Your task to perform on an android device: check battery use Image 0: 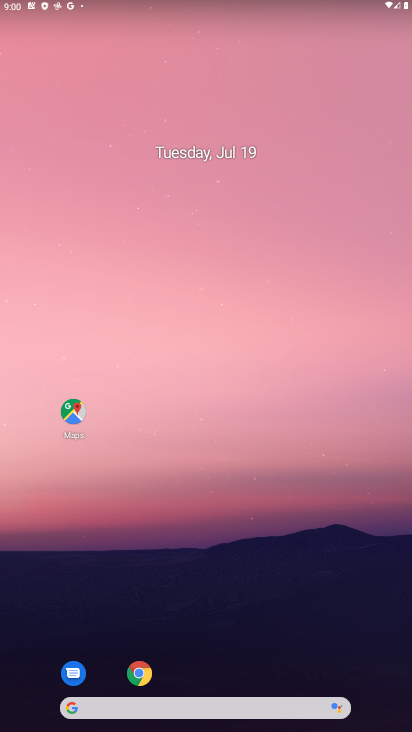
Step 0: drag from (225, 682) to (192, 289)
Your task to perform on an android device: check battery use Image 1: 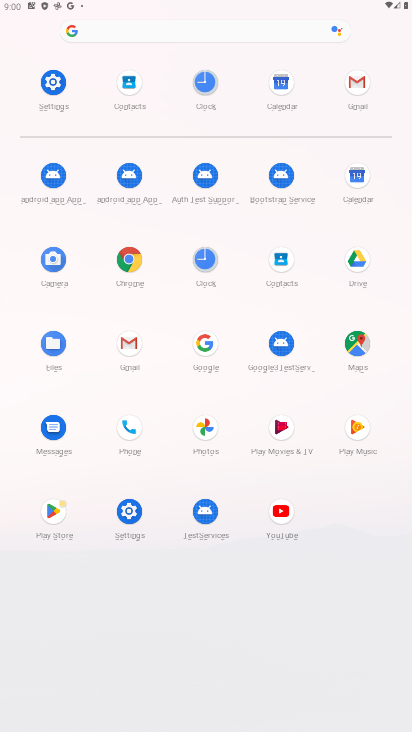
Step 1: click (57, 92)
Your task to perform on an android device: check battery use Image 2: 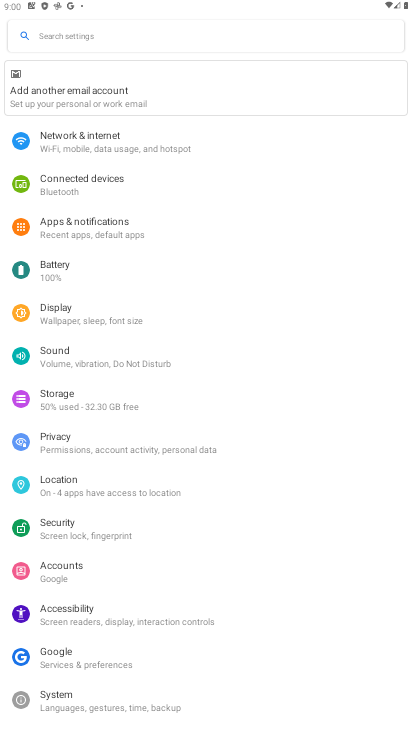
Step 2: click (126, 274)
Your task to perform on an android device: check battery use Image 3: 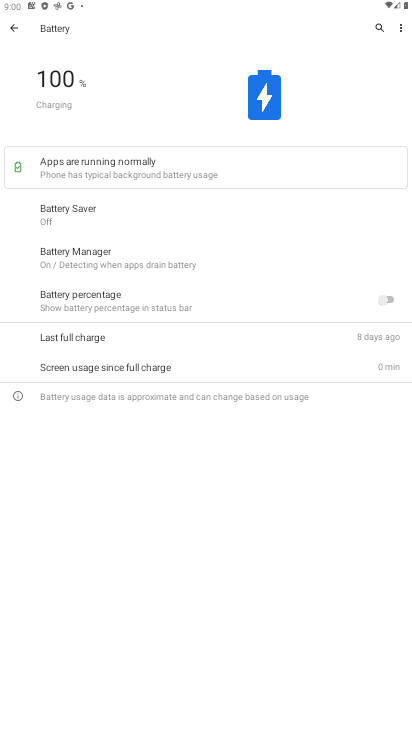
Step 3: task complete